Your task to perform on an android device: Open Chrome and go to settings Image 0: 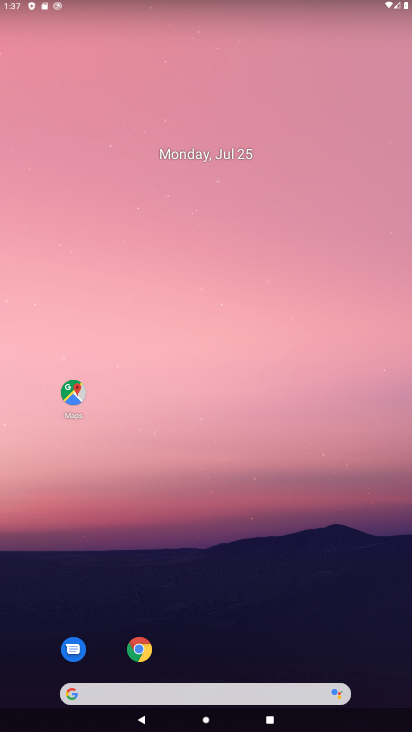
Step 0: click (139, 650)
Your task to perform on an android device: Open Chrome and go to settings Image 1: 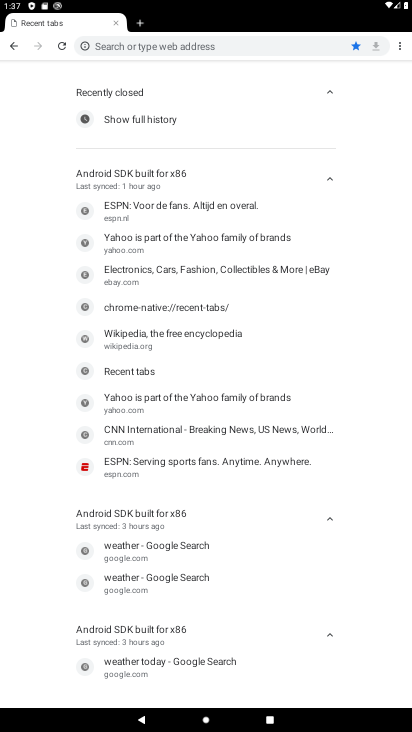
Step 1: click (401, 48)
Your task to perform on an android device: Open Chrome and go to settings Image 2: 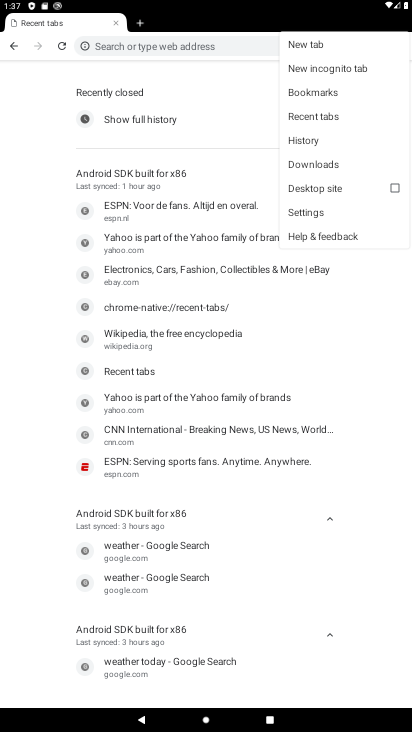
Step 2: click (327, 217)
Your task to perform on an android device: Open Chrome and go to settings Image 3: 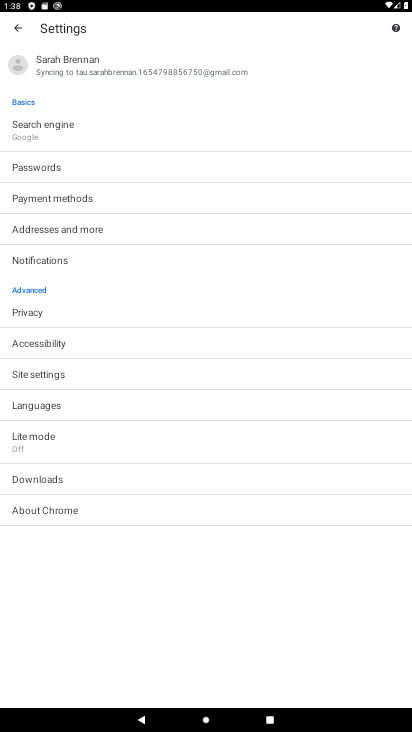
Step 3: task complete